Your task to perform on an android device: toggle airplane mode Image 0: 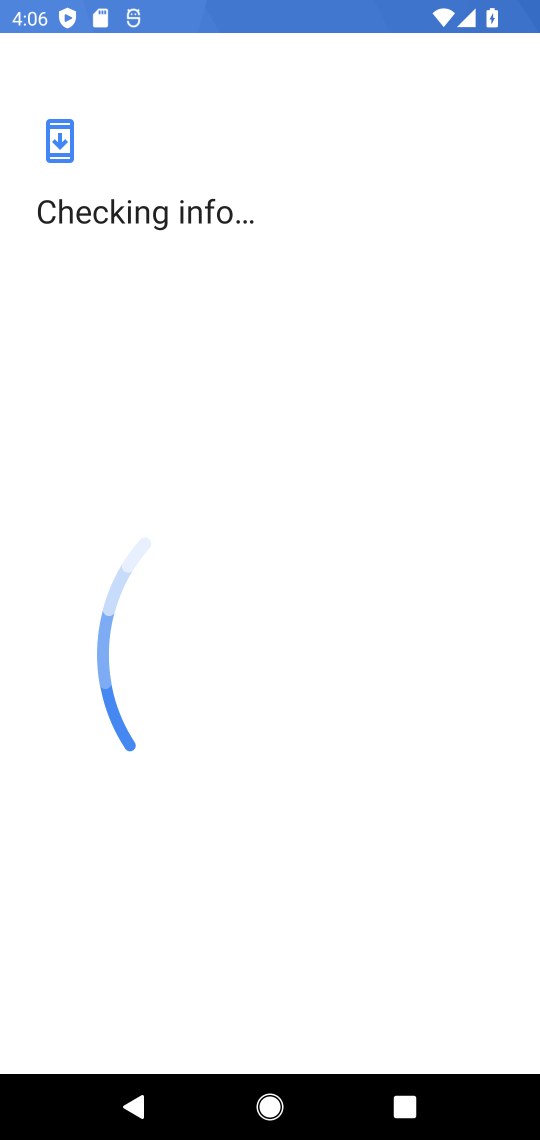
Step 0: press home button
Your task to perform on an android device: toggle airplane mode Image 1: 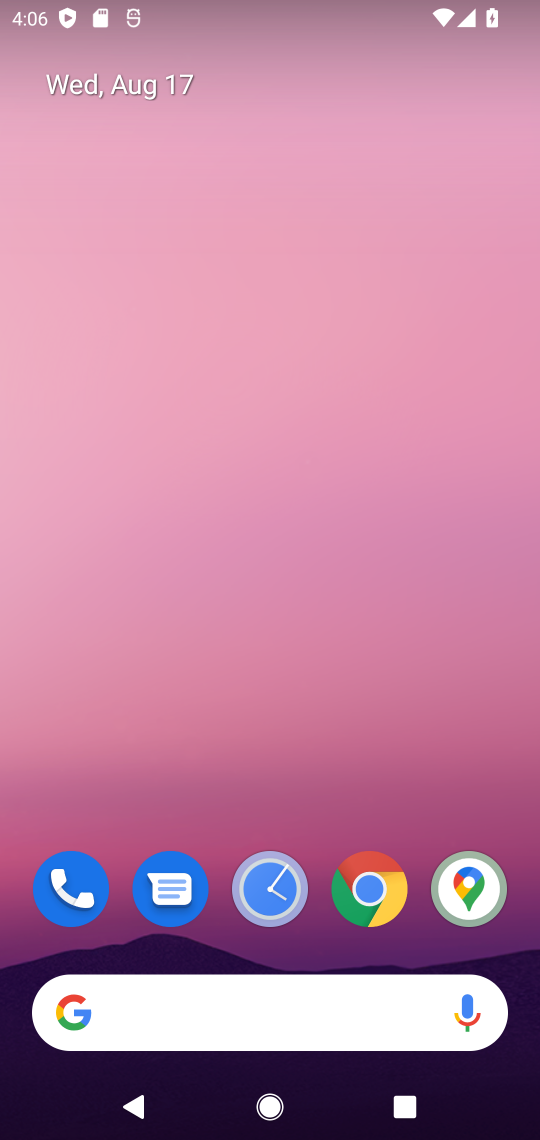
Step 1: drag from (317, 803) to (200, 6)
Your task to perform on an android device: toggle airplane mode Image 2: 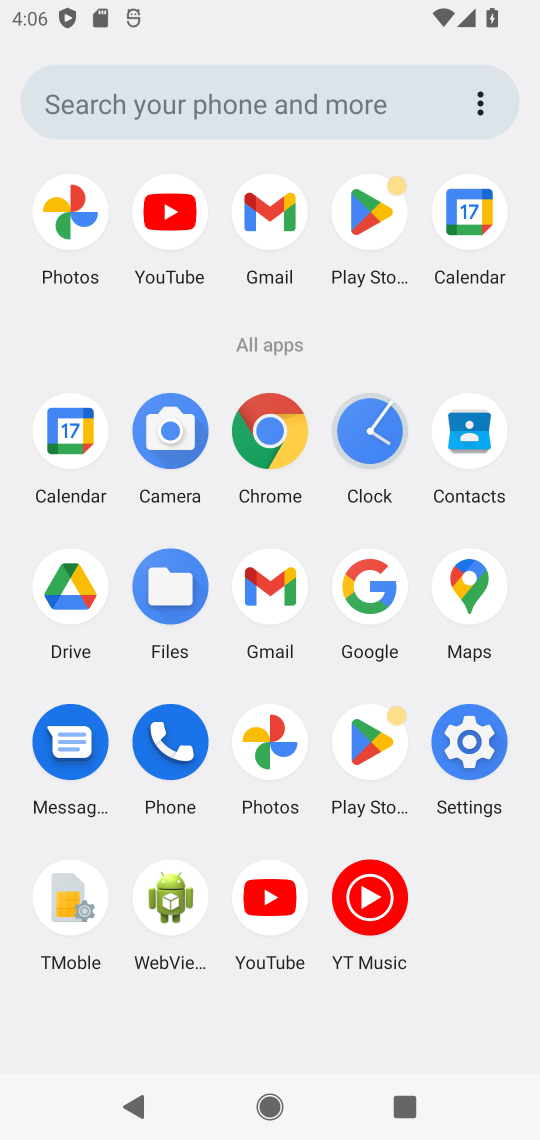
Step 2: click (470, 742)
Your task to perform on an android device: toggle airplane mode Image 3: 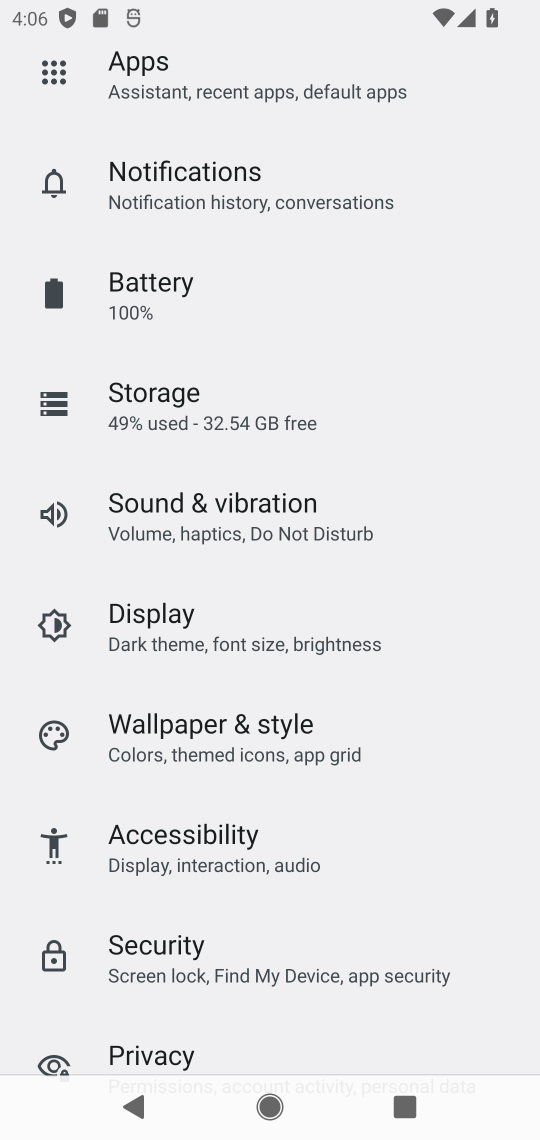
Step 3: drag from (329, 289) to (381, 837)
Your task to perform on an android device: toggle airplane mode Image 4: 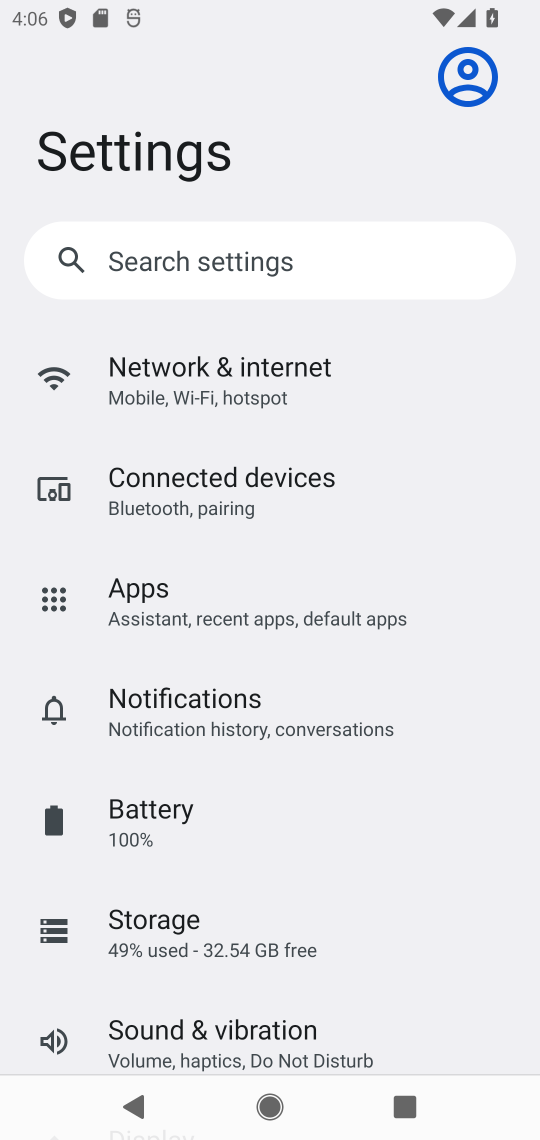
Step 4: click (224, 362)
Your task to perform on an android device: toggle airplane mode Image 5: 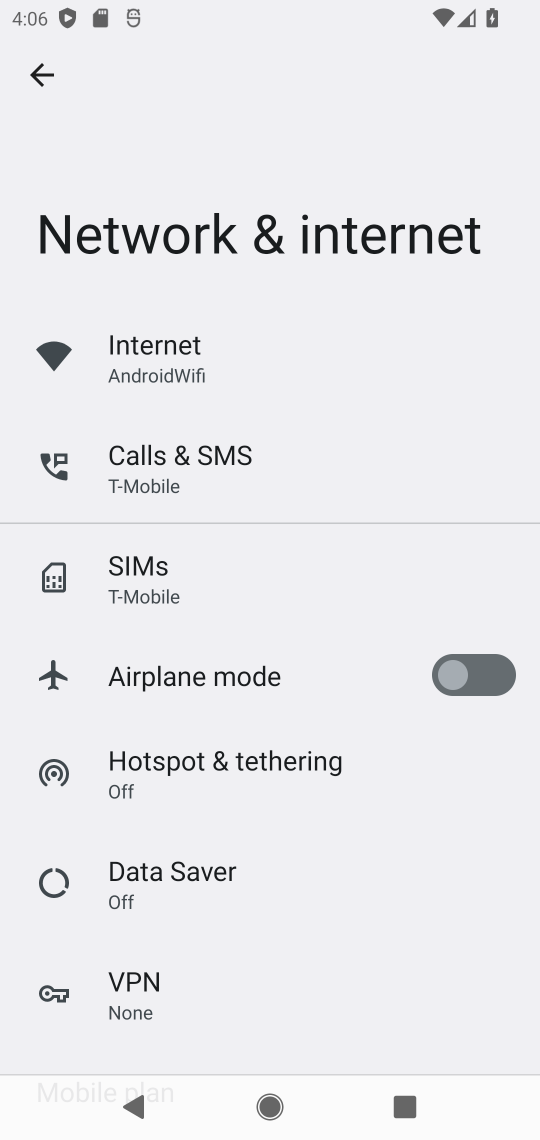
Step 5: click (450, 673)
Your task to perform on an android device: toggle airplane mode Image 6: 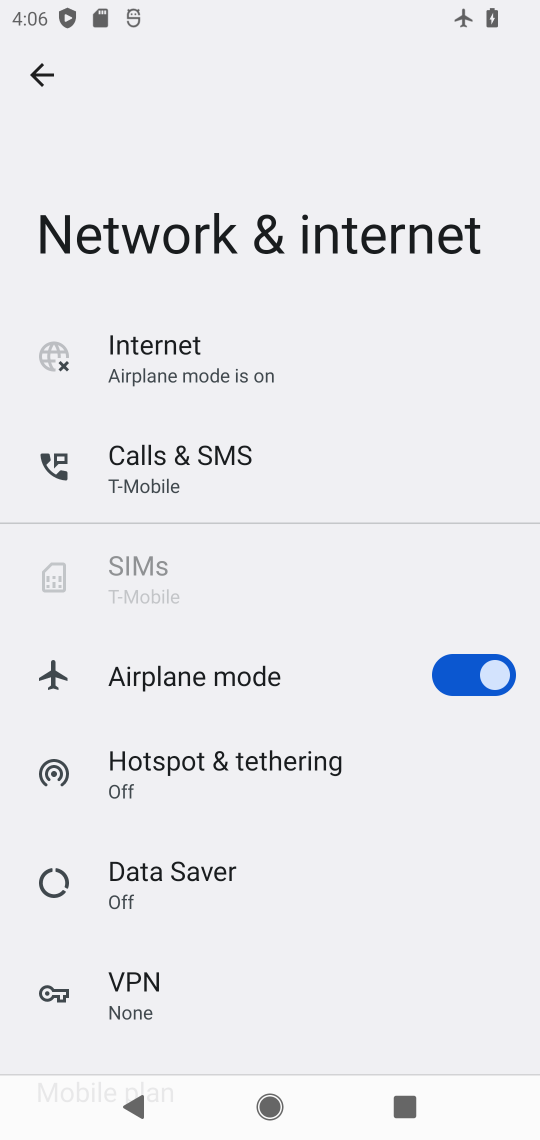
Step 6: task complete